Your task to perform on an android device: Search for sushi restaurants on Maps Image 0: 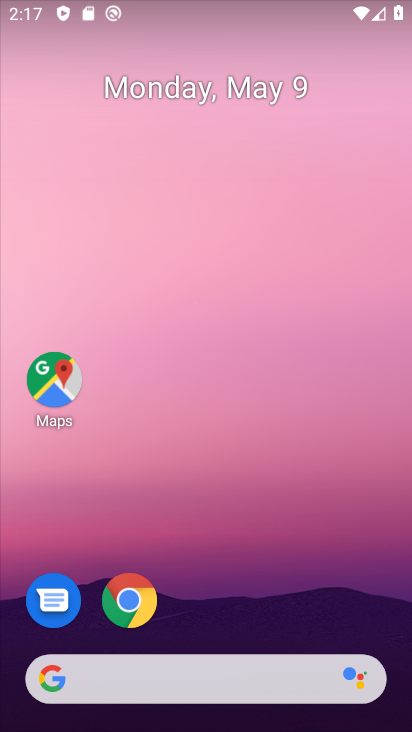
Step 0: click (49, 373)
Your task to perform on an android device: Search for sushi restaurants on Maps Image 1: 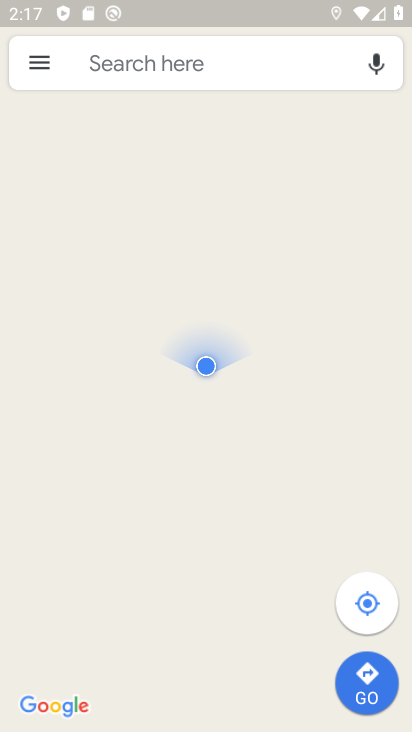
Step 1: click (148, 66)
Your task to perform on an android device: Search for sushi restaurants on Maps Image 2: 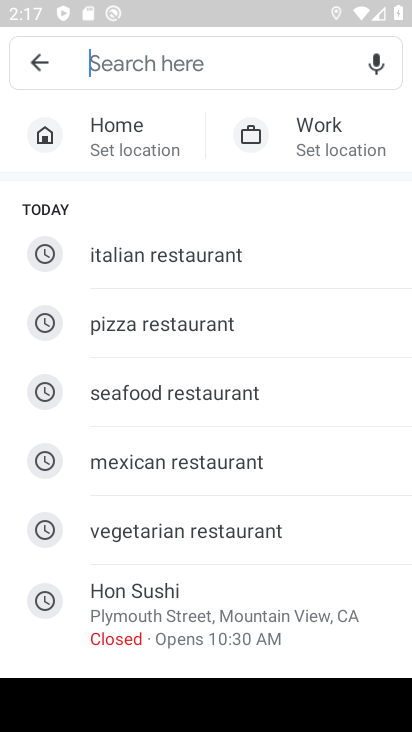
Step 2: type "sushi restaurant"
Your task to perform on an android device: Search for sushi restaurants on Maps Image 3: 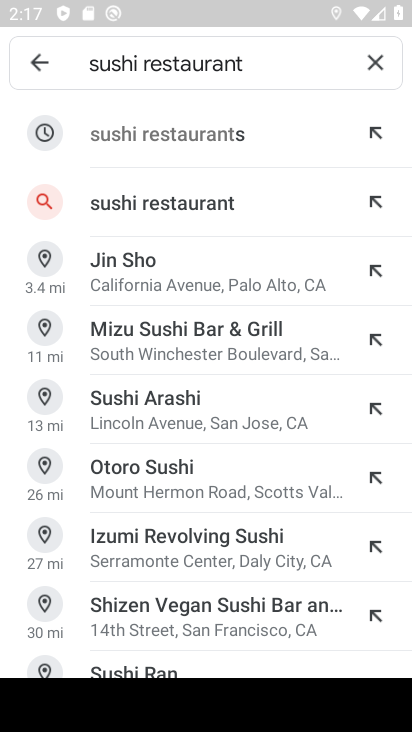
Step 3: click (154, 139)
Your task to perform on an android device: Search for sushi restaurants on Maps Image 4: 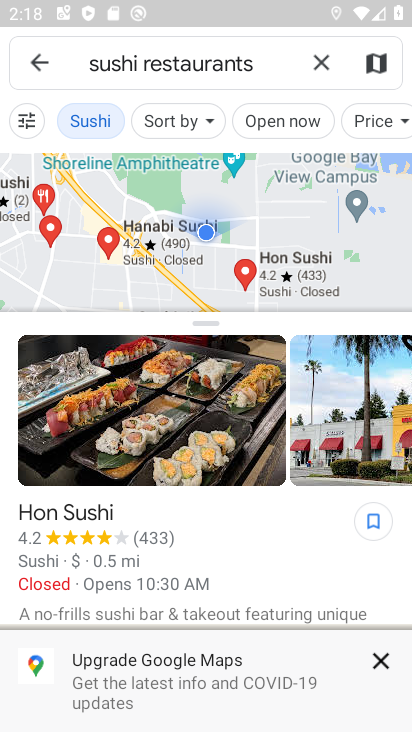
Step 4: task complete